Your task to perform on an android device: Search for a 3D printer on aliexpress. Image 0: 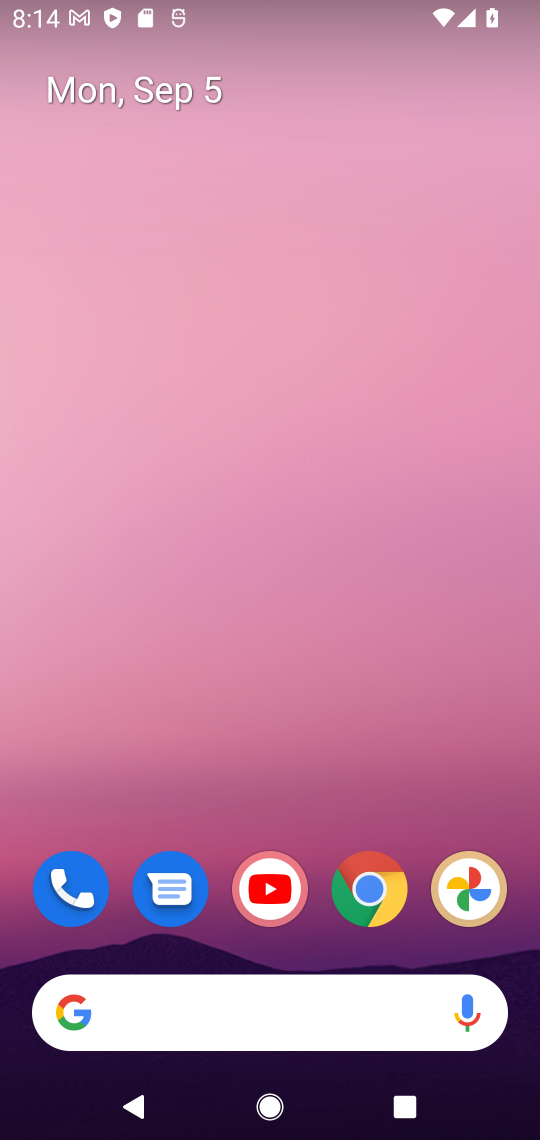
Step 0: click (221, 1020)
Your task to perform on an android device: Search for a 3D printer on aliexpress. Image 1: 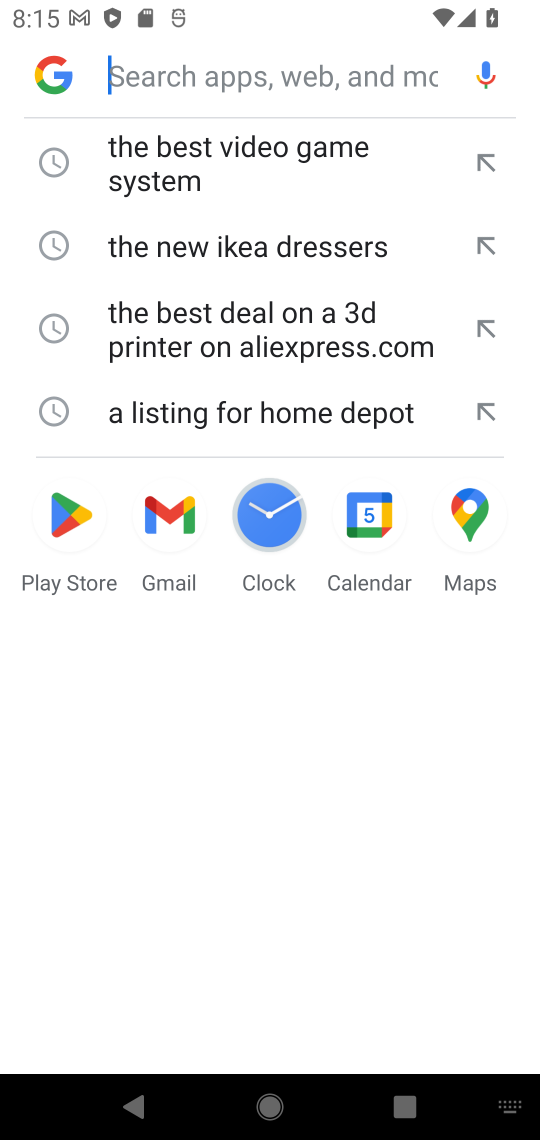
Step 1: type "a 3D printer on aliexpress"
Your task to perform on an android device: Search for a 3D printer on aliexpress. Image 2: 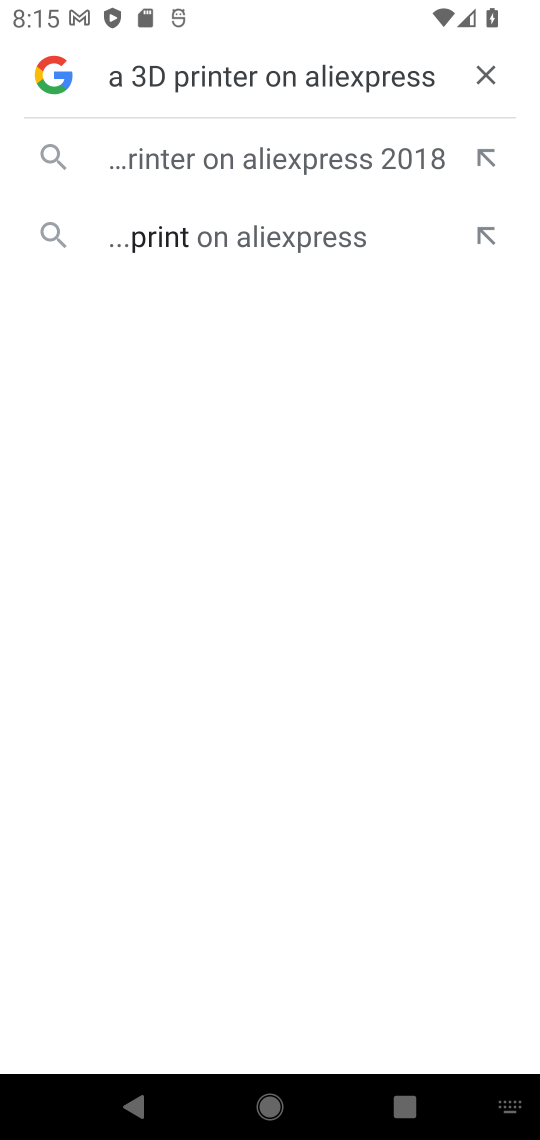
Step 2: click (276, 249)
Your task to perform on an android device: Search for a 3D printer on aliexpress. Image 3: 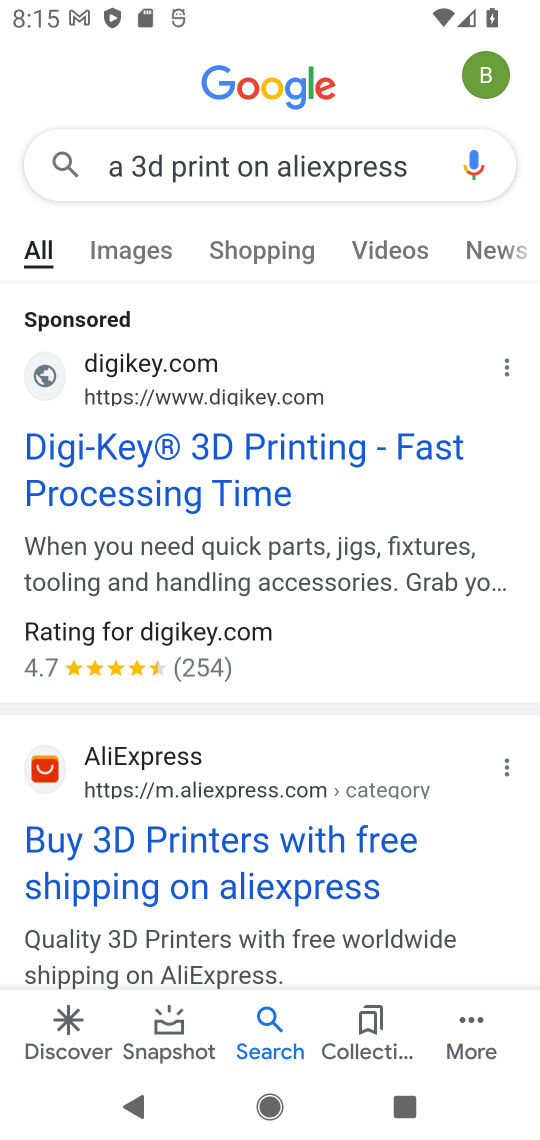
Step 3: task complete